Your task to perform on an android device: turn pop-ups off in chrome Image 0: 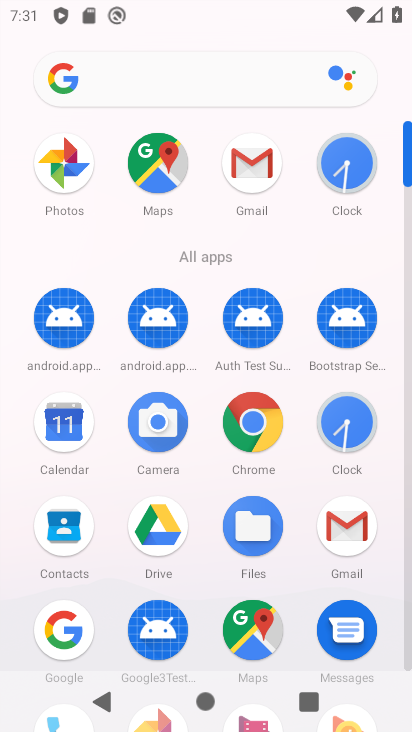
Step 0: click (266, 426)
Your task to perform on an android device: turn pop-ups off in chrome Image 1: 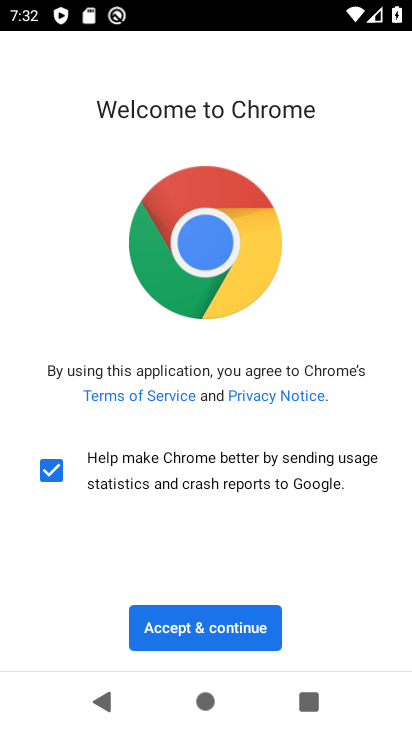
Step 1: click (236, 628)
Your task to perform on an android device: turn pop-ups off in chrome Image 2: 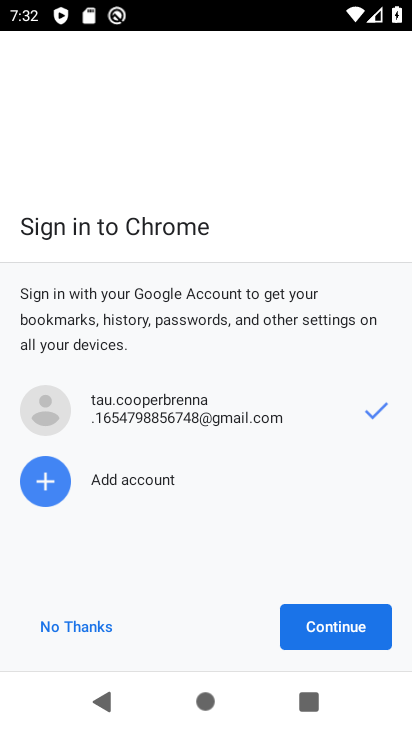
Step 2: click (330, 618)
Your task to perform on an android device: turn pop-ups off in chrome Image 3: 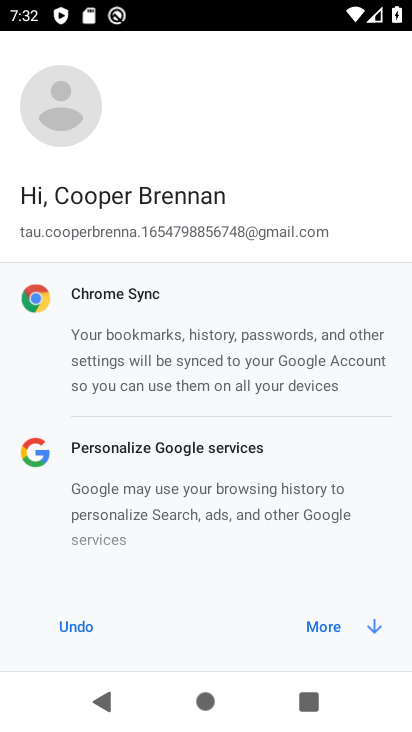
Step 3: click (326, 621)
Your task to perform on an android device: turn pop-ups off in chrome Image 4: 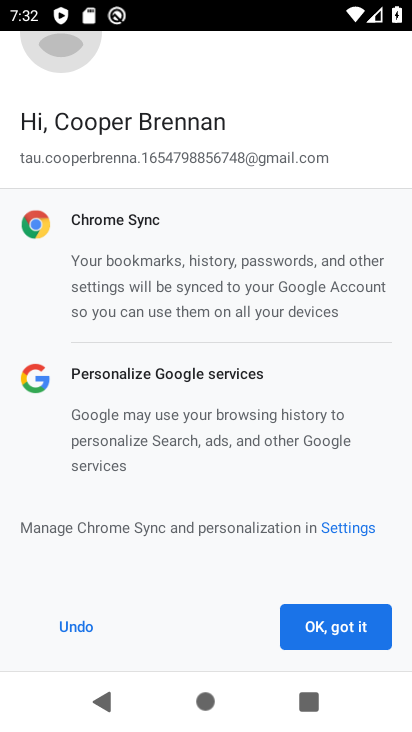
Step 4: click (331, 628)
Your task to perform on an android device: turn pop-ups off in chrome Image 5: 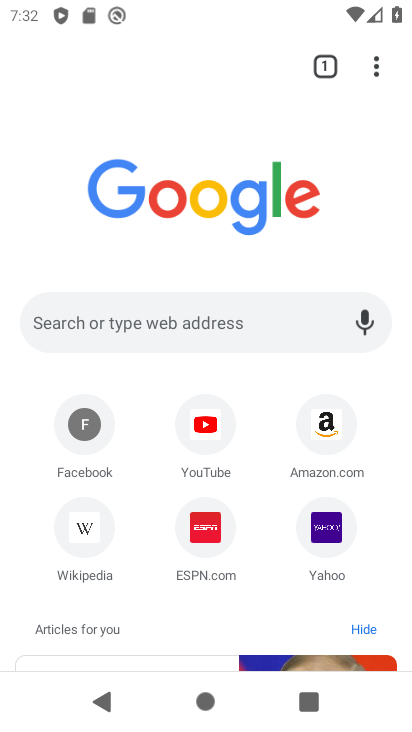
Step 5: click (376, 60)
Your task to perform on an android device: turn pop-ups off in chrome Image 6: 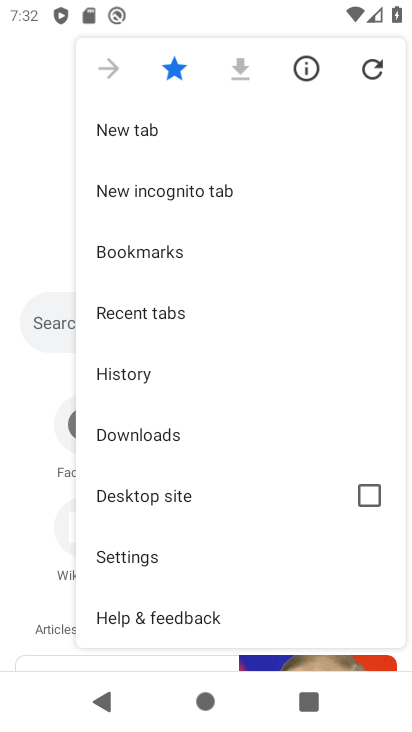
Step 6: click (157, 554)
Your task to perform on an android device: turn pop-ups off in chrome Image 7: 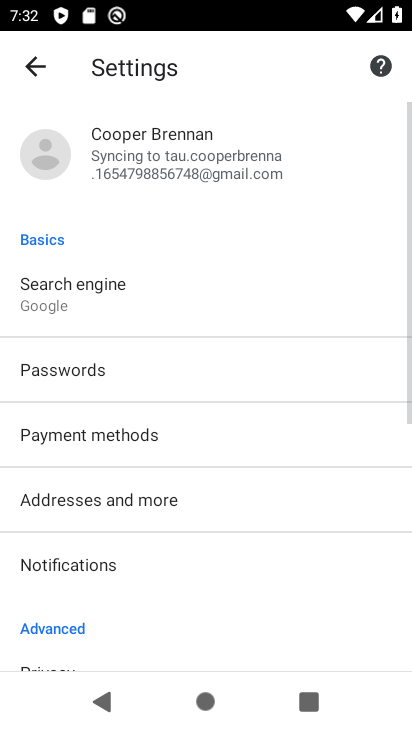
Step 7: drag from (248, 498) to (252, 176)
Your task to perform on an android device: turn pop-ups off in chrome Image 8: 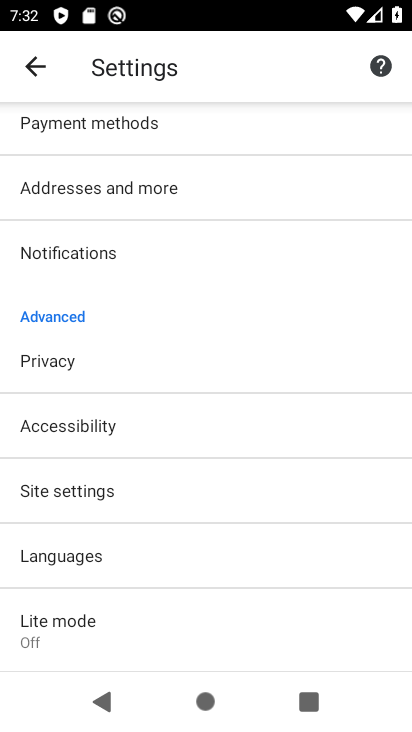
Step 8: click (117, 486)
Your task to perform on an android device: turn pop-ups off in chrome Image 9: 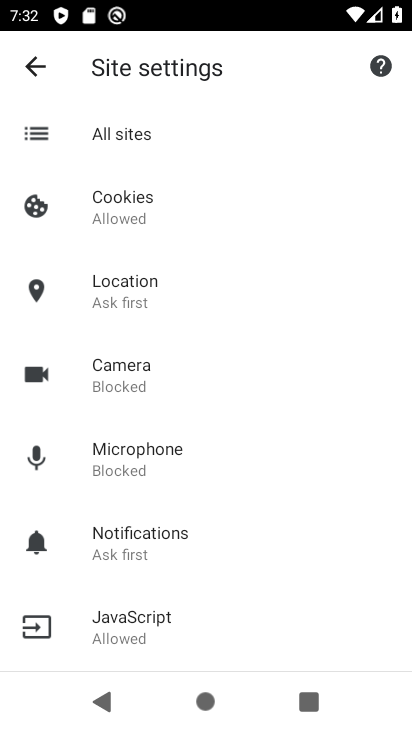
Step 9: drag from (235, 491) to (228, 277)
Your task to perform on an android device: turn pop-ups off in chrome Image 10: 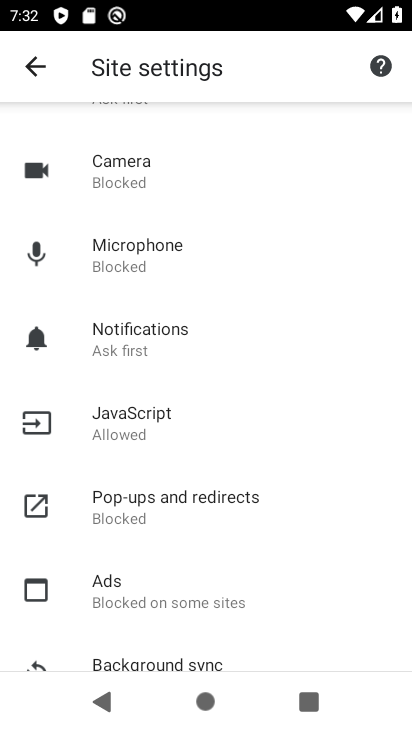
Step 10: click (184, 499)
Your task to perform on an android device: turn pop-ups off in chrome Image 11: 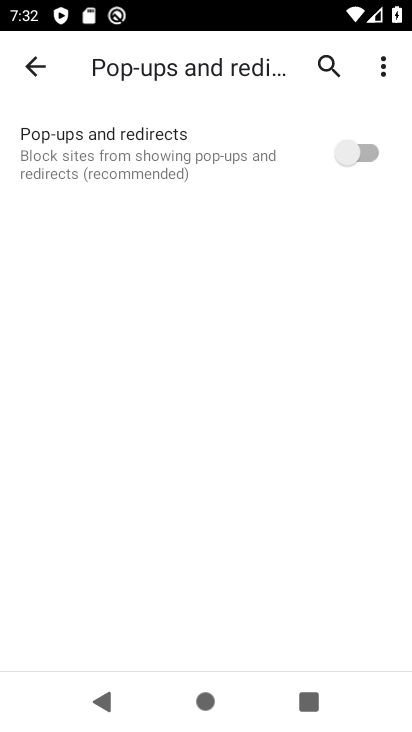
Step 11: task complete